Your task to perform on an android device: open device folders in google photos Image 0: 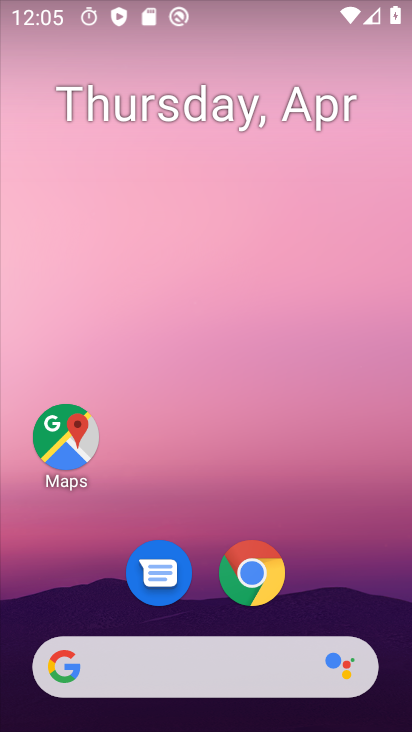
Step 0: drag from (390, 608) to (377, 157)
Your task to perform on an android device: open device folders in google photos Image 1: 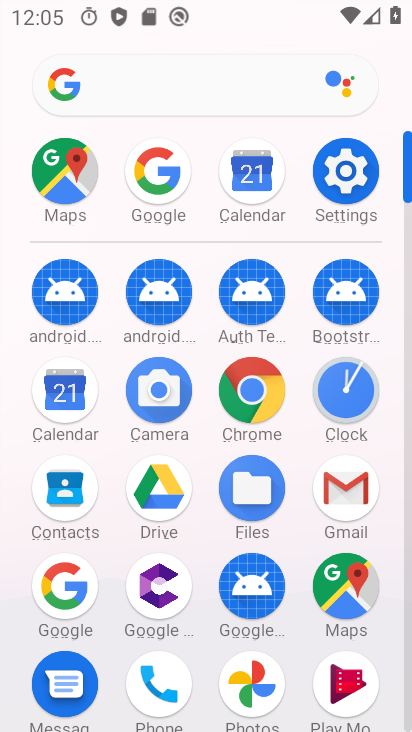
Step 1: click (239, 682)
Your task to perform on an android device: open device folders in google photos Image 2: 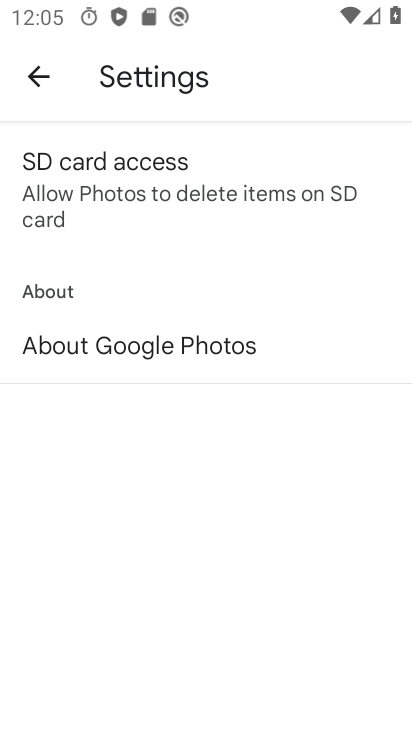
Step 2: click (29, 73)
Your task to perform on an android device: open device folders in google photos Image 3: 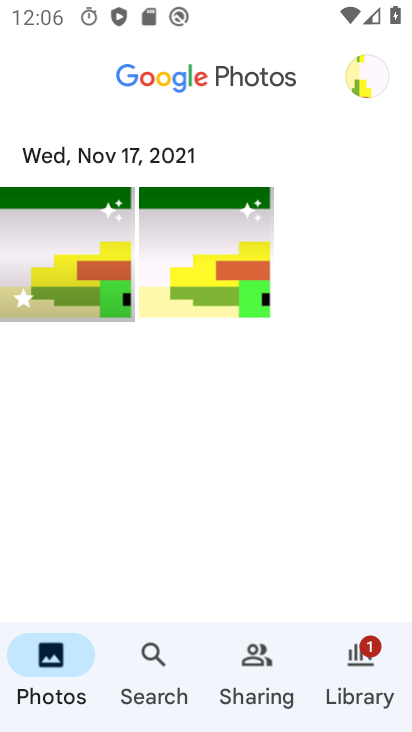
Step 3: task complete